Your task to perform on an android device: Open Wikipedia Image 0: 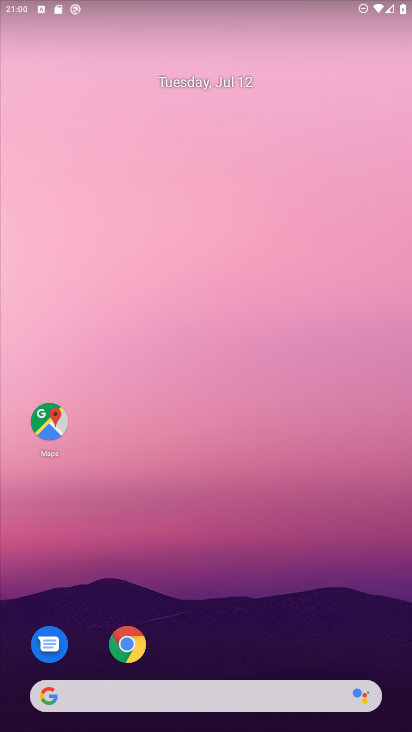
Step 0: click (124, 645)
Your task to perform on an android device: Open Wikipedia Image 1: 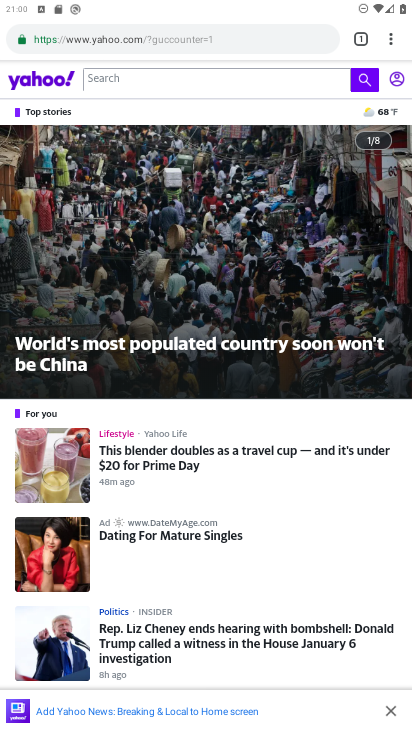
Step 1: click (230, 27)
Your task to perform on an android device: Open Wikipedia Image 2: 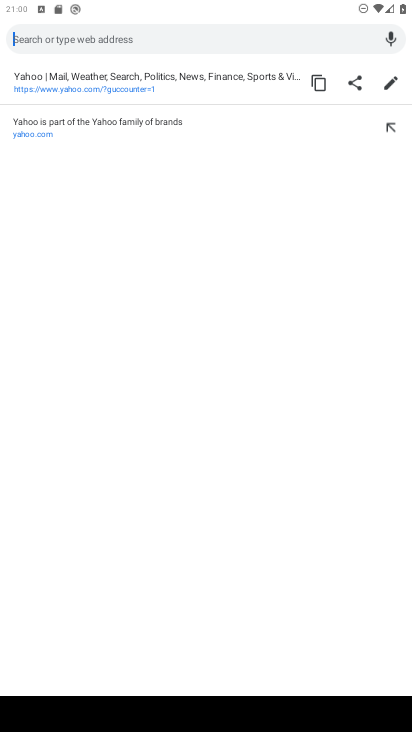
Step 2: type "wikipedia"
Your task to perform on an android device: Open Wikipedia Image 3: 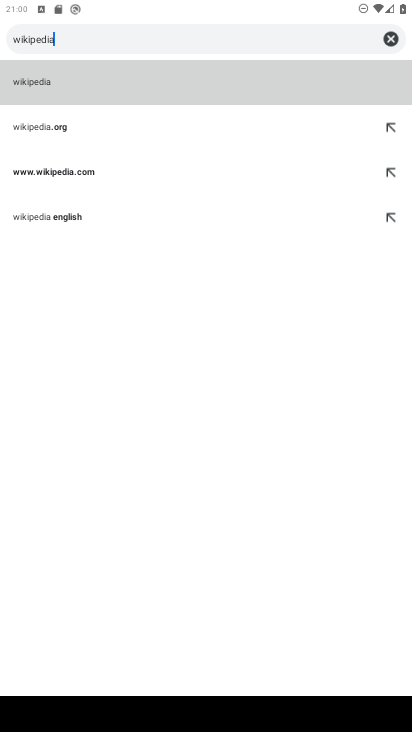
Step 3: click (62, 77)
Your task to perform on an android device: Open Wikipedia Image 4: 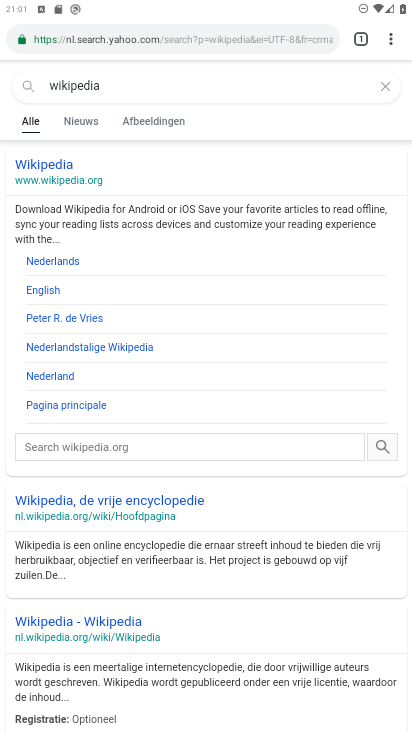
Step 4: click (44, 170)
Your task to perform on an android device: Open Wikipedia Image 5: 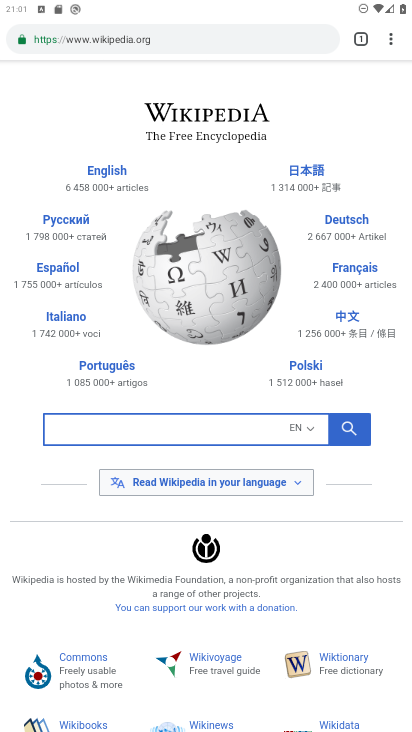
Step 5: task complete